Your task to perform on an android device: Is it going to rain today? Image 0: 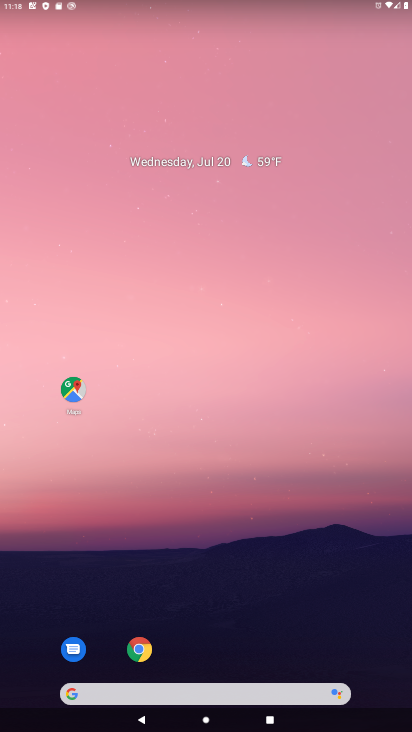
Step 0: drag from (205, 664) to (225, 57)
Your task to perform on an android device: Is it going to rain today? Image 1: 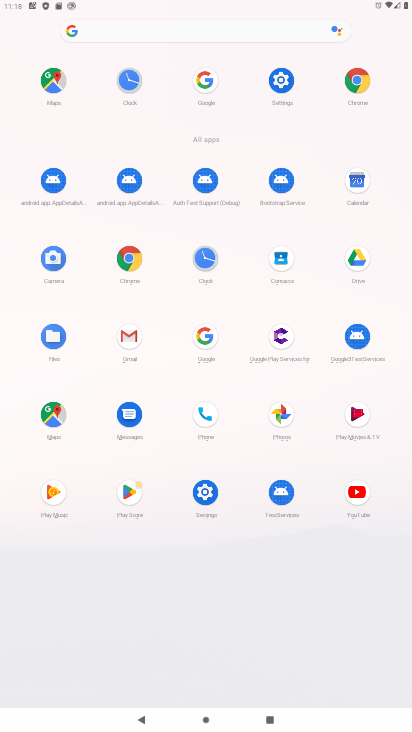
Step 1: click (203, 336)
Your task to perform on an android device: Is it going to rain today? Image 2: 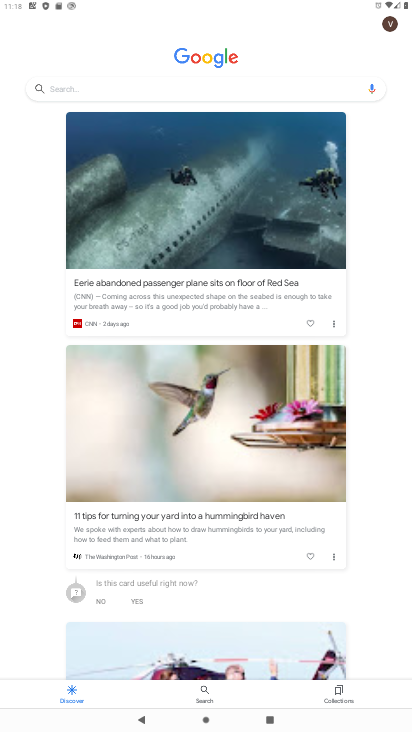
Step 2: click (190, 84)
Your task to perform on an android device: Is it going to rain today? Image 3: 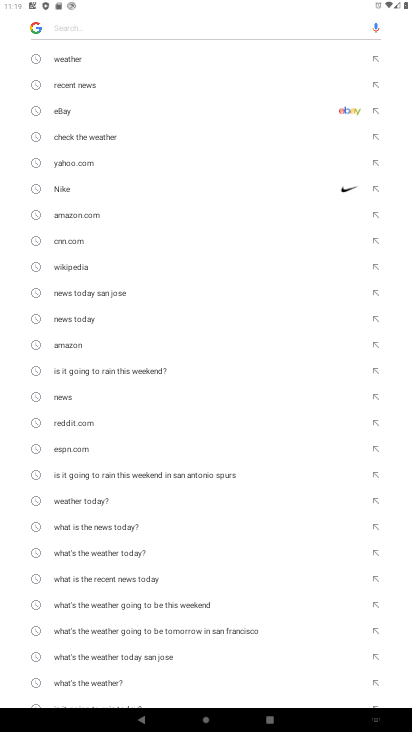
Step 3: type "is it going to rain today?"
Your task to perform on an android device: Is it going to rain today? Image 4: 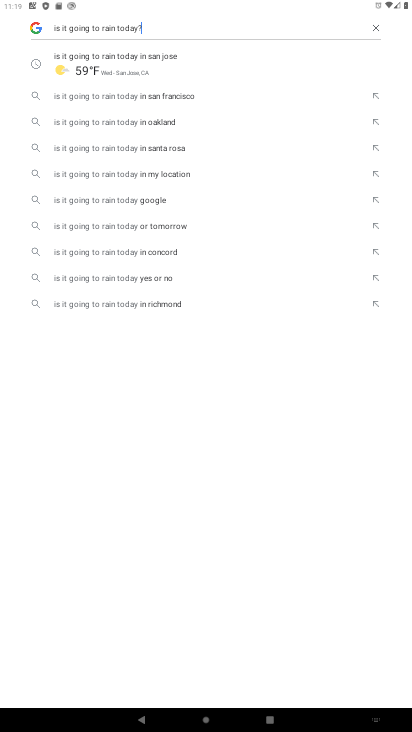
Step 4: click (89, 61)
Your task to perform on an android device: Is it going to rain today? Image 5: 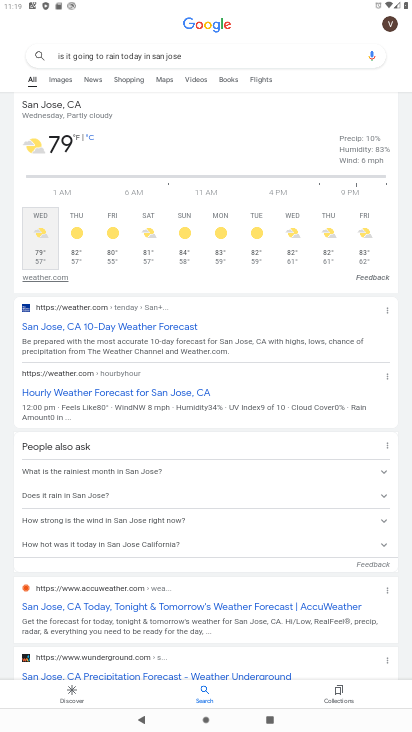
Step 5: task complete